Your task to perform on an android device: open a new tab in the chrome app Image 0: 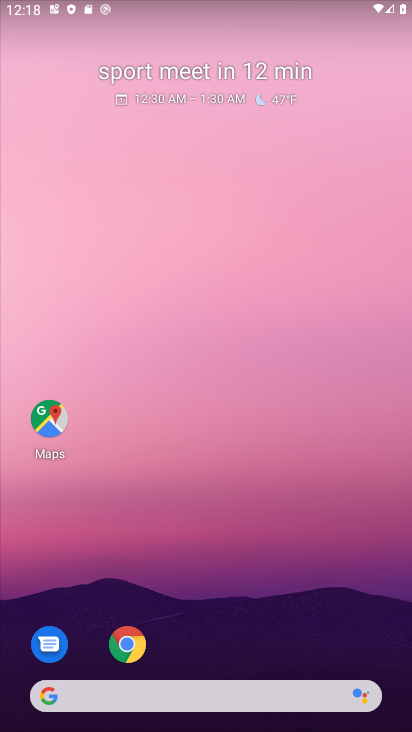
Step 0: drag from (265, 665) to (233, 327)
Your task to perform on an android device: open a new tab in the chrome app Image 1: 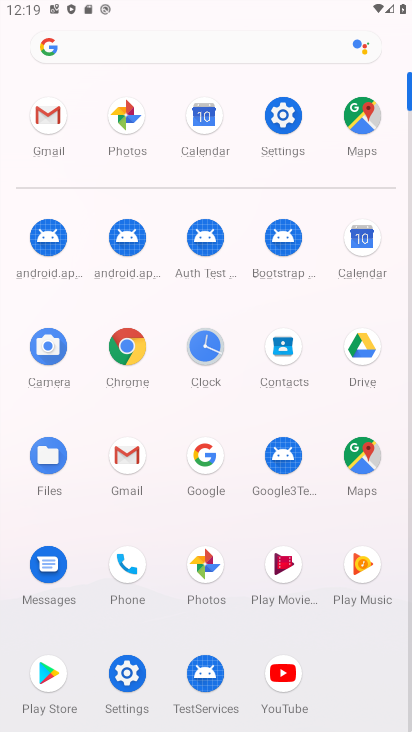
Step 1: click (143, 360)
Your task to perform on an android device: open a new tab in the chrome app Image 2: 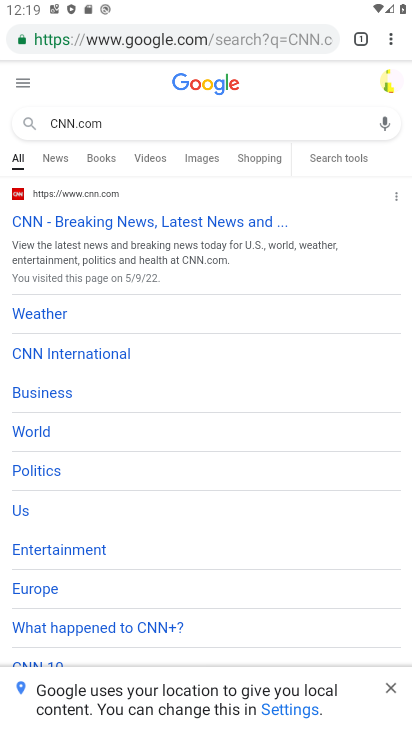
Step 2: click (359, 41)
Your task to perform on an android device: open a new tab in the chrome app Image 3: 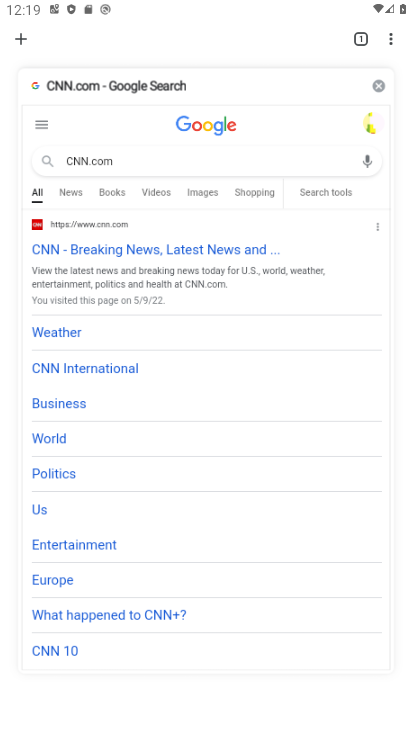
Step 3: click (20, 45)
Your task to perform on an android device: open a new tab in the chrome app Image 4: 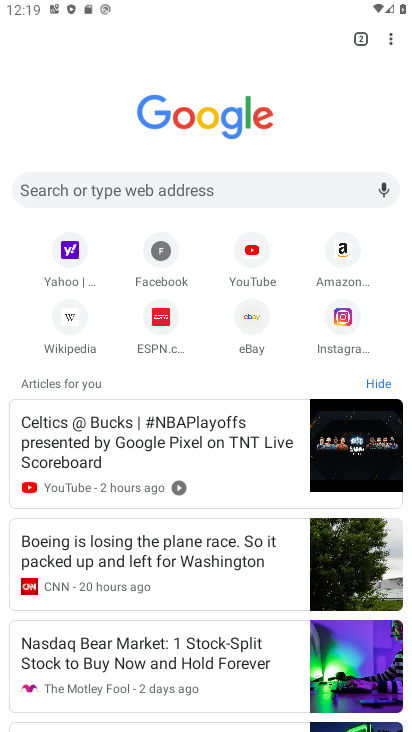
Step 4: task complete